Your task to perform on an android device: Do I have any events today? Image 0: 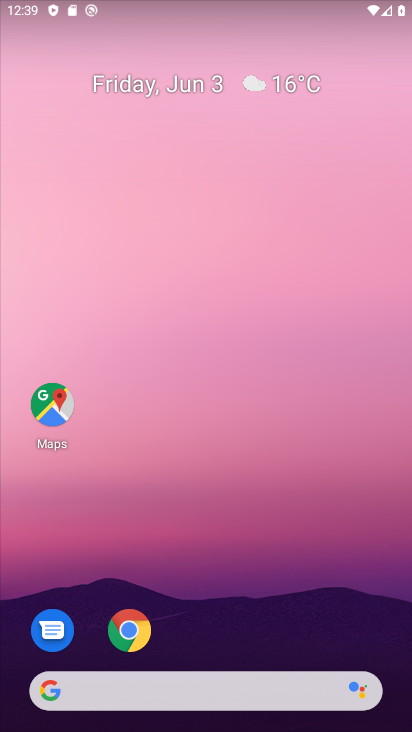
Step 0: drag from (234, 707) to (213, 278)
Your task to perform on an android device: Do I have any events today? Image 1: 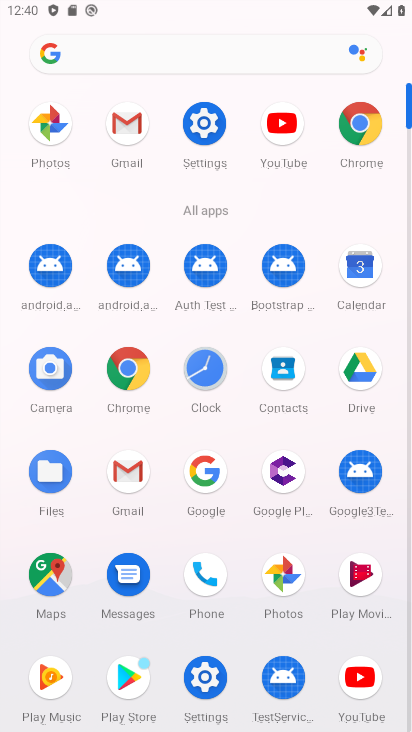
Step 1: click (356, 282)
Your task to perform on an android device: Do I have any events today? Image 2: 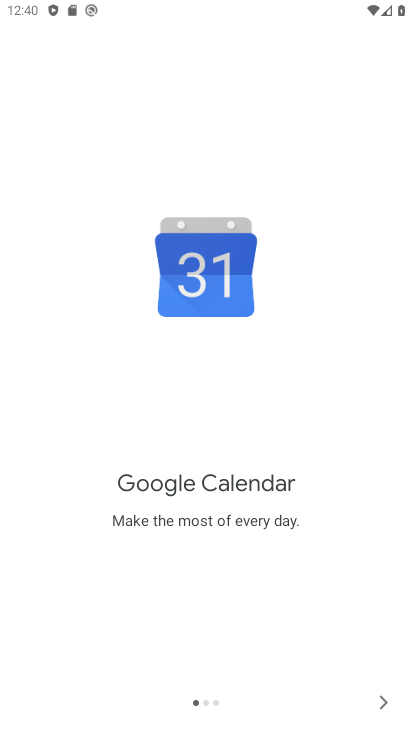
Step 2: click (389, 694)
Your task to perform on an android device: Do I have any events today? Image 3: 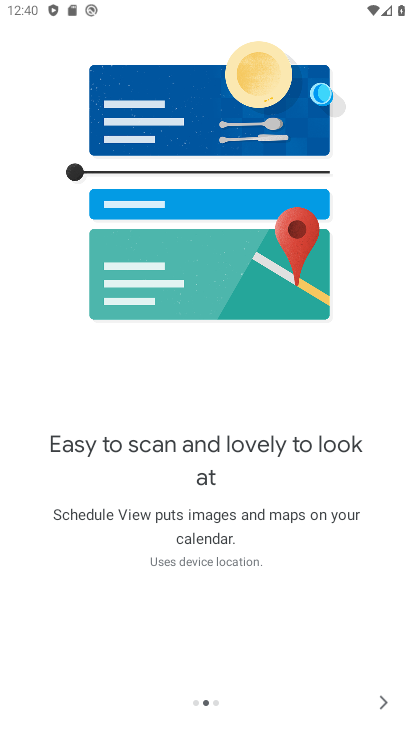
Step 3: click (373, 711)
Your task to perform on an android device: Do I have any events today? Image 4: 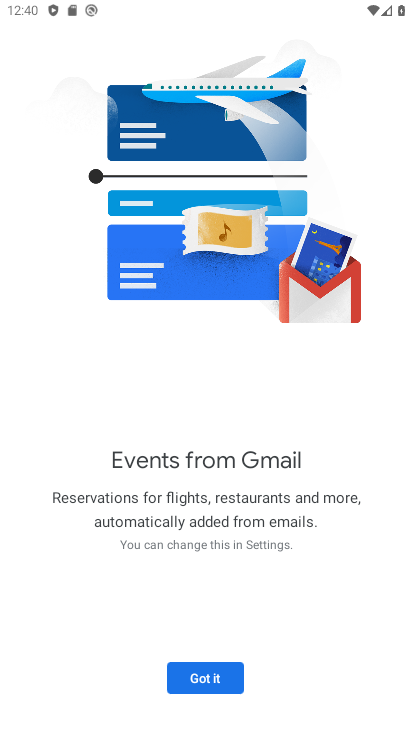
Step 4: click (221, 676)
Your task to perform on an android device: Do I have any events today? Image 5: 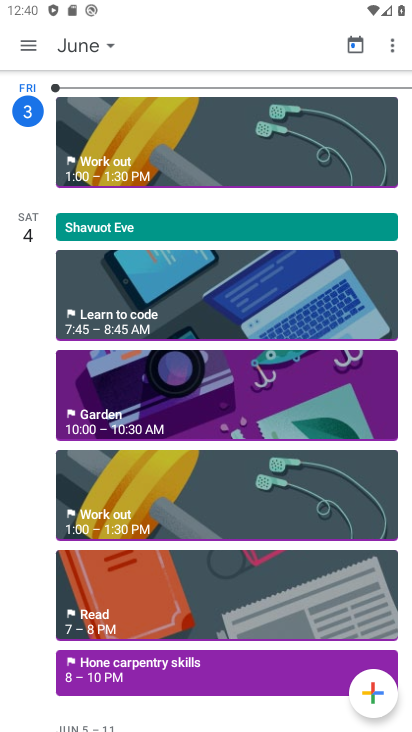
Step 5: task complete